Your task to perform on an android device: change the clock style Image 0: 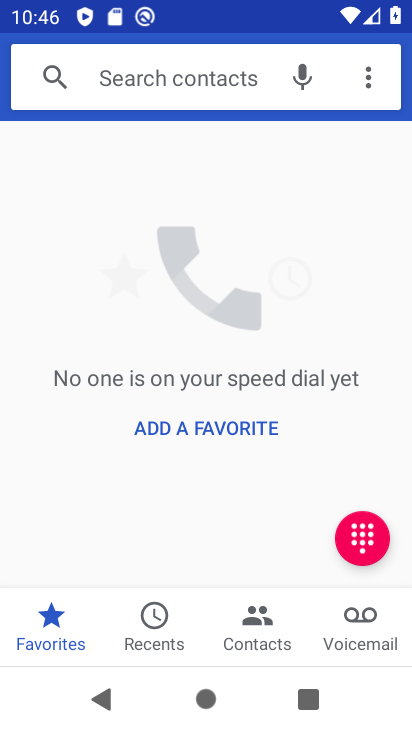
Step 0: press home button
Your task to perform on an android device: change the clock style Image 1: 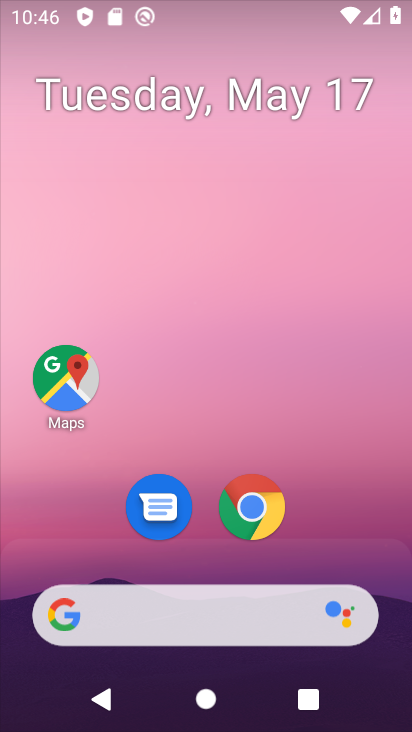
Step 1: drag from (136, 586) to (229, 34)
Your task to perform on an android device: change the clock style Image 2: 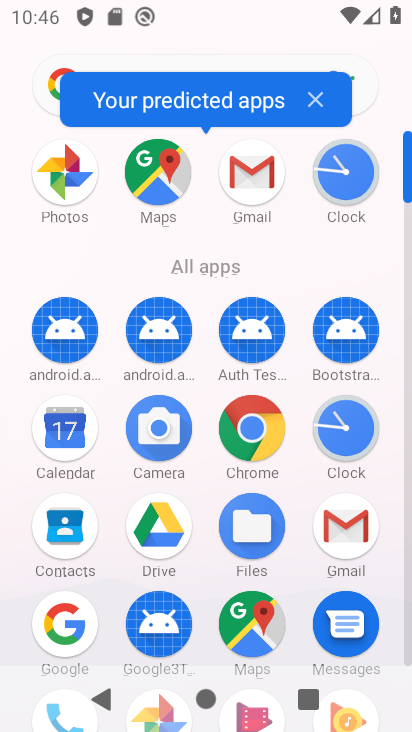
Step 2: click (352, 427)
Your task to perform on an android device: change the clock style Image 3: 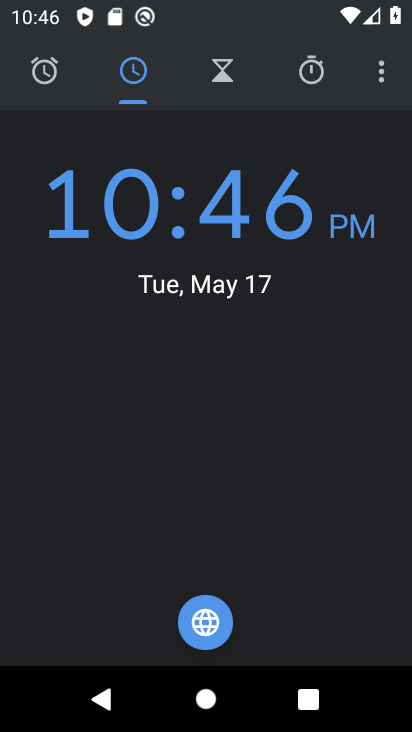
Step 3: click (390, 71)
Your task to perform on an android device: change the clock style Image 4: 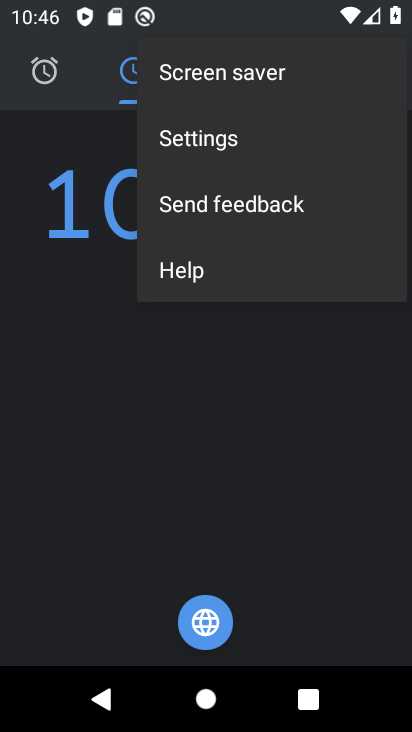
Step 4: click (372, 134)
Your task to perform on an android device: change the clock style Image 5: 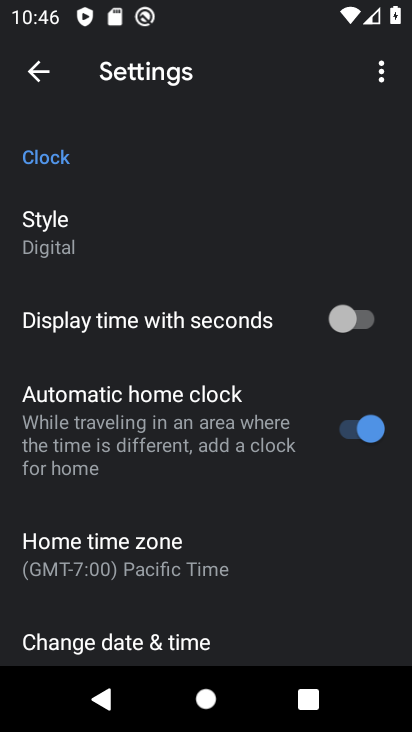
Step 5: click (142, 224)
Your task to perform on an android device: change the clock style Image 6: 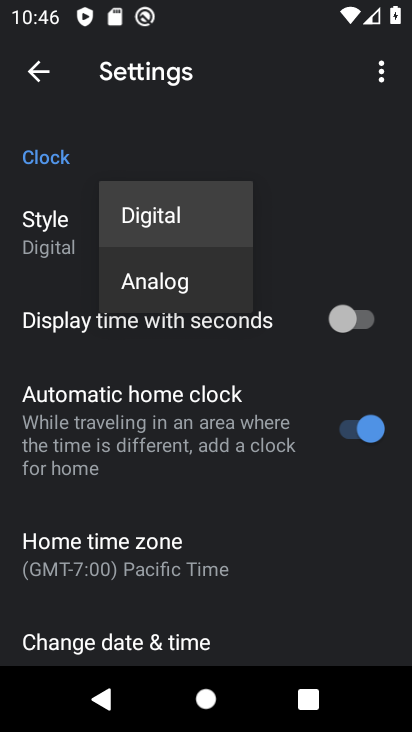
Step 6: click (174, 290)
Your task to perform on an android device: change the clock style Image 7: 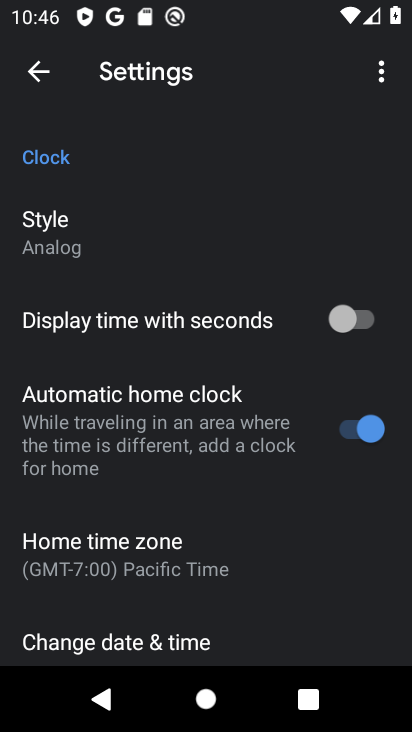
Step 7: click (177, 251)
Your task to perform on an android device: change the clock style Image 8: 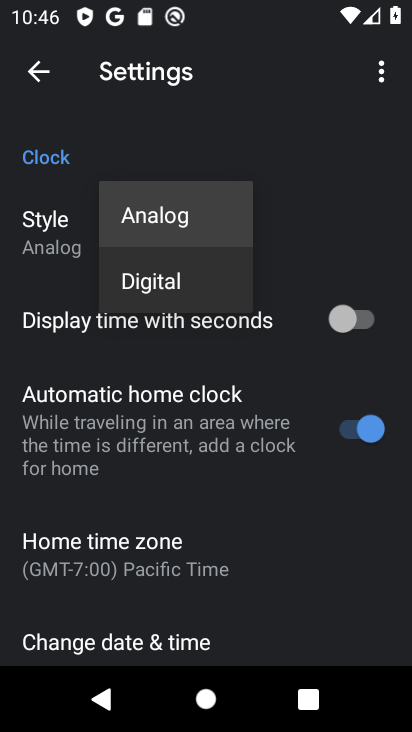
Step 8: click (184, 283)
Your task to perform on an android device: change the clock style Image 9: 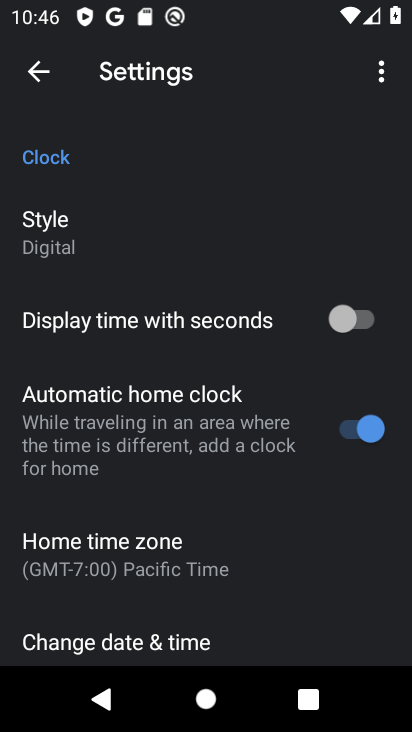
Step 9: task complete